Your task to perform on an android device: delete browsing data in the chrome app Image 0: 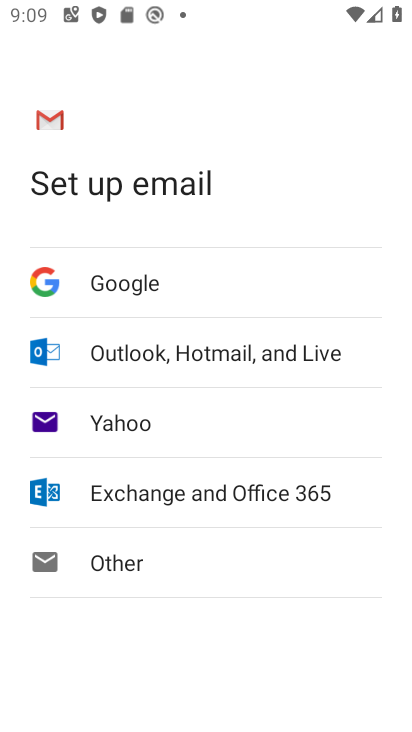
Step 0: press home button
Your task to perform on an android device: delete browsing data in the chrome app Image 1: 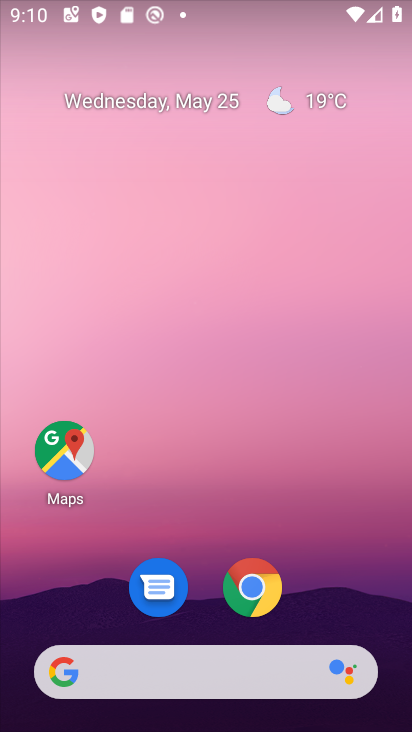
Step 1: click (258, 590)
Your task to perform on an android device: delete browsing data in the chrome app Image 2: 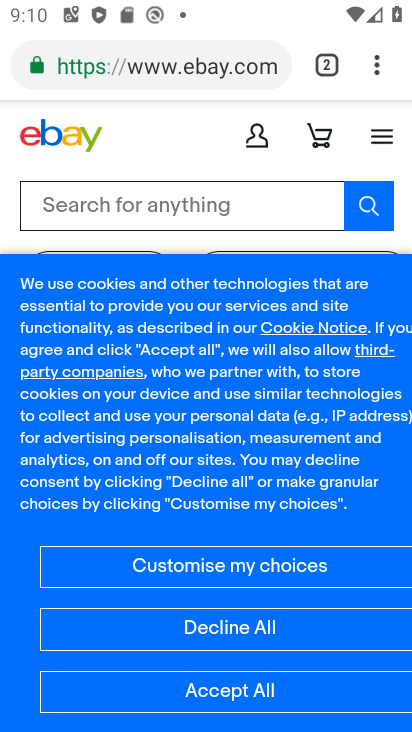
Step 2: click (371, 68)
Your task to perform on an android device: delete browsing data in the chrome app Image 3: 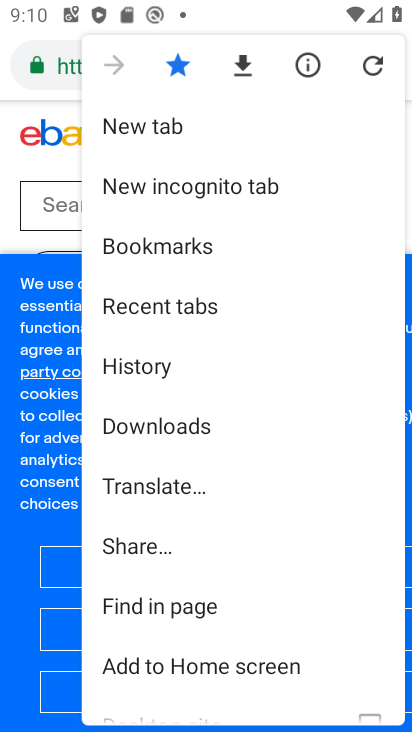
Step 3: click (145, 351)
Your task to perform on an android device: delete browsing data in the chrome app Image 4: 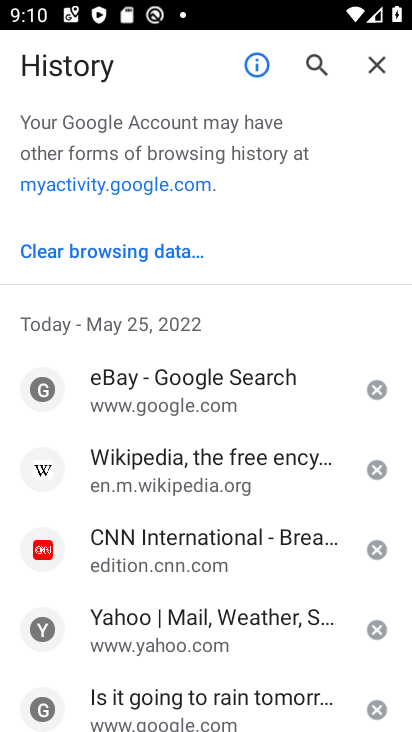
Step 4: click (116, 243)
Your task to perform on an android device: delete browsing data in the chrome app Image 5: 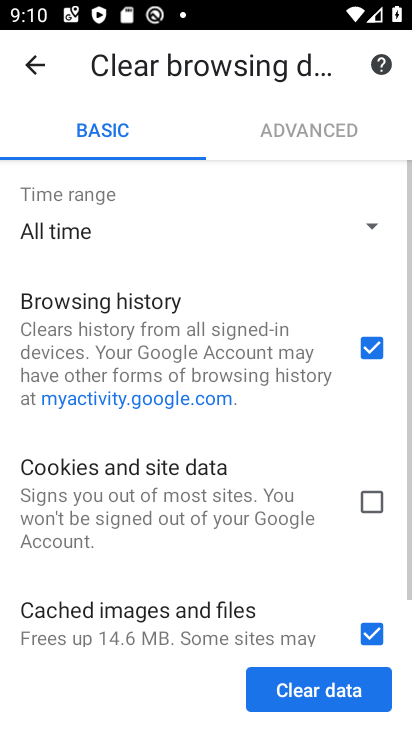
Step 5: click (367, 630)
Your task to perform on an android device: delete browsing data in the chrome app Image 6: 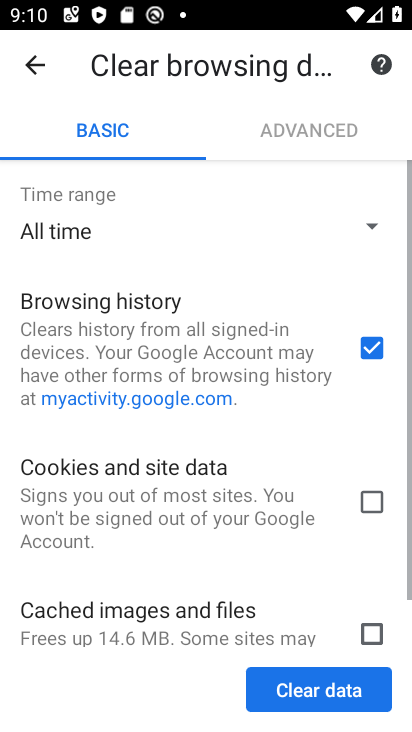
Step 6: drag from (367, 630) to (301, 151)
Your task to perform on an android device: delete browsing data in the chrome app Image 7: 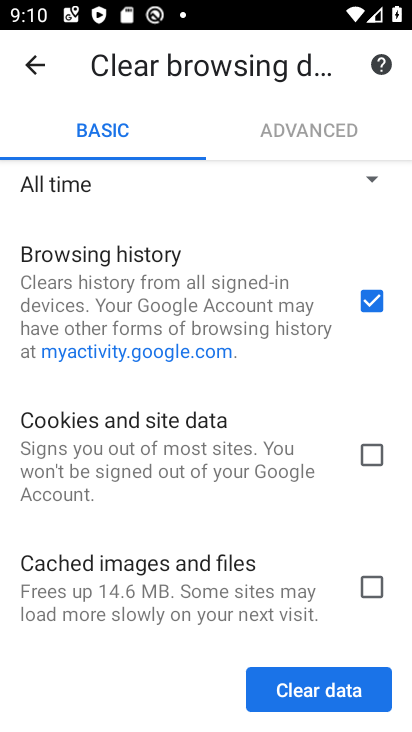
Step 7: click (322, 687)
Your task to perform on an android device: delete browsing data in the chrome app Image 8: 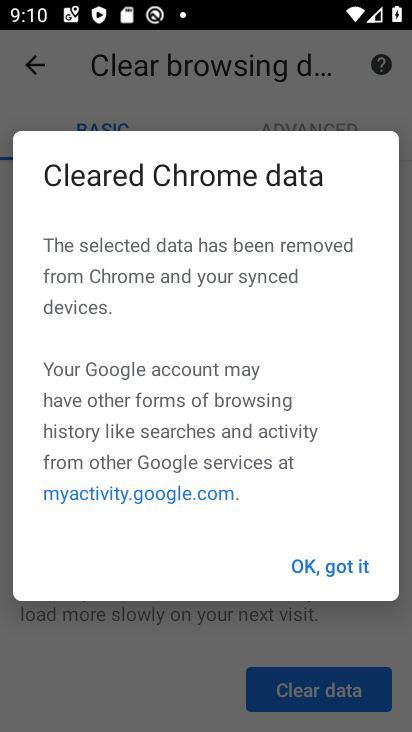
Step 8: click (345, 569)
Your task to perform on an android device: delete browsing data in the chrome app Image 9: 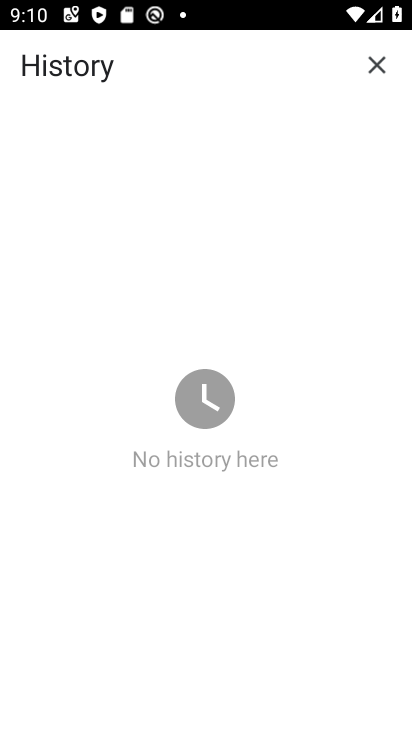
Step 9: task complete